Your task to perform on an android device: Go to Android settings Image 0: 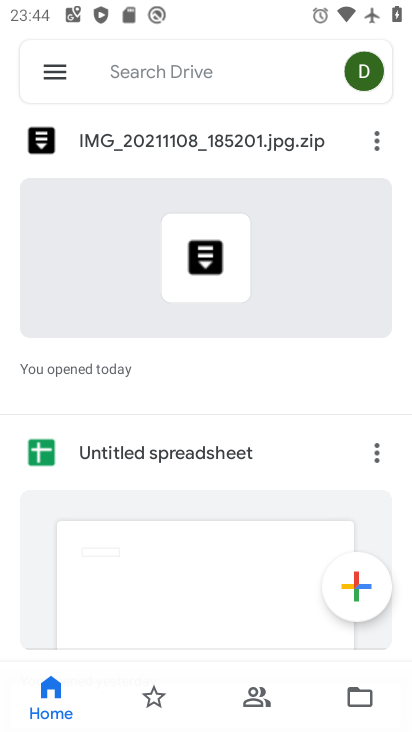
Step 0: press back button
Your task to perform on an android device: Go to Android settings Image 1: 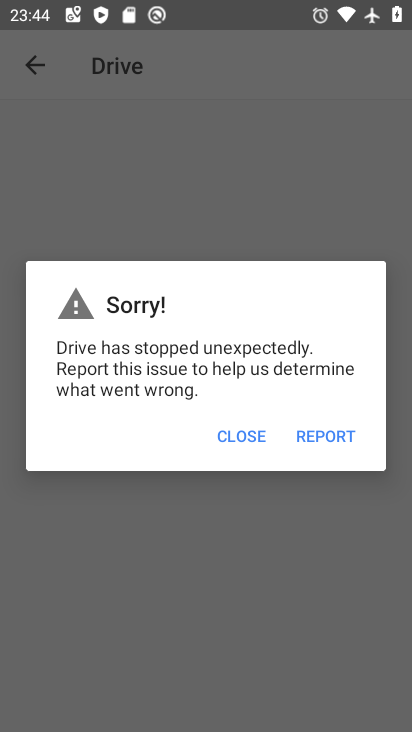
Step 1: press home button
Your task to perform on an android device: Go to Android settings Image 2: 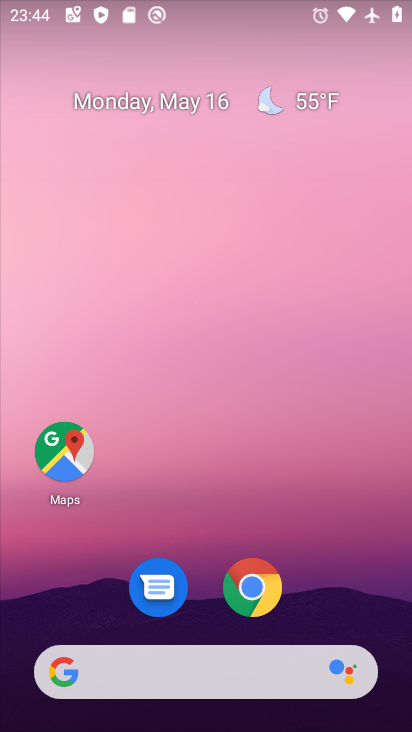
Step 2: drag from (322, 557) to (246, 25)
Your task to perform on an android device: Go to Android settings Image 3: 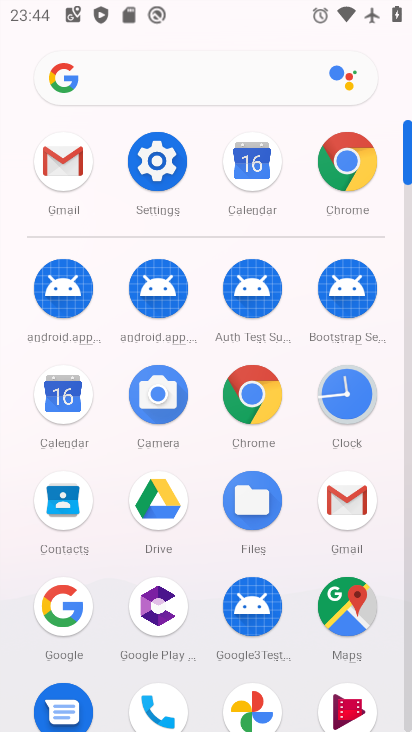
Step 3: click (153, 156)
Your task to perform on an android device: Go to Android settings Image 4: 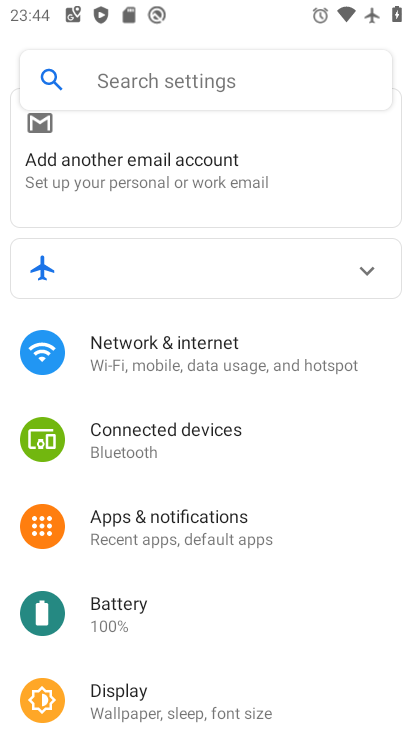
Step 4: task complete